Your task to perform on an android device: Search for Mexican restaurants on Maps Image 0: 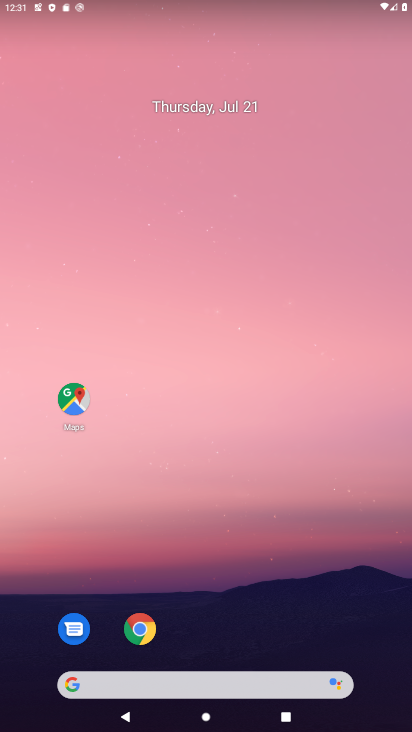
Step 0: drag from (265, 628) to (231, 181)
Your task to perform on an android device: Search for Mexican restaurants on Maps Image 1: 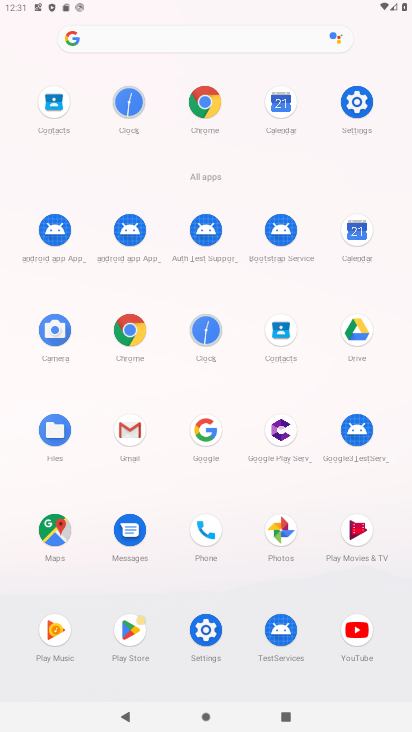
Step 1: click (57, 530)
Your task to perform on an android device: Search for Mexican restaurants on Maps Image 2: 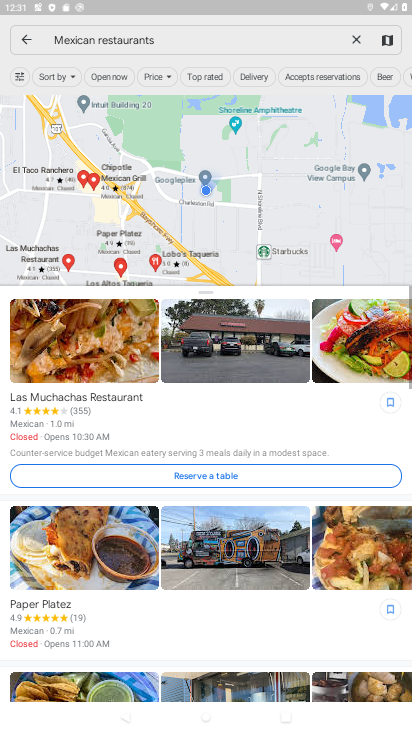
Step 2: task complete